Your task to perform on an android device: Do I have any events today? Image 0: 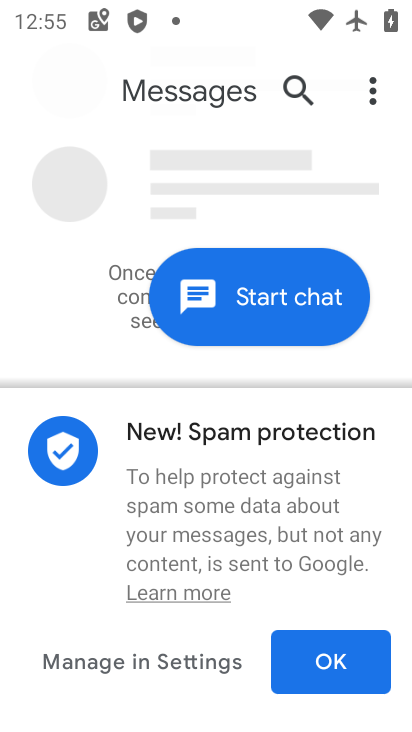
Step 0: press home button
Your task to perform on an android device: Do I have any events today? Image 1: 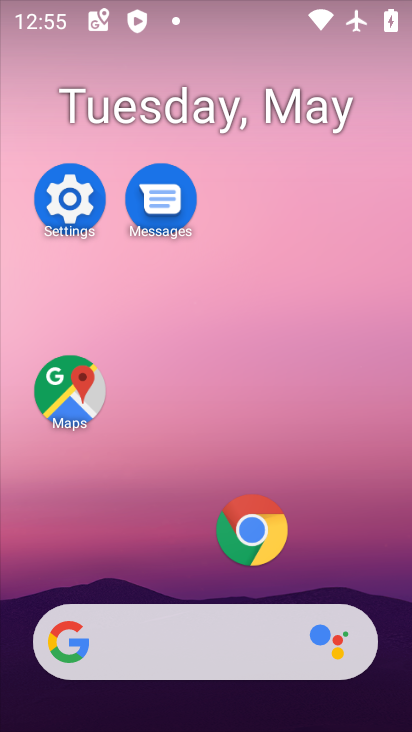
Step 1: drag from (207, 578) to (239, 226)
Your task to perform on an android device: Do I have any events today? Image 2: 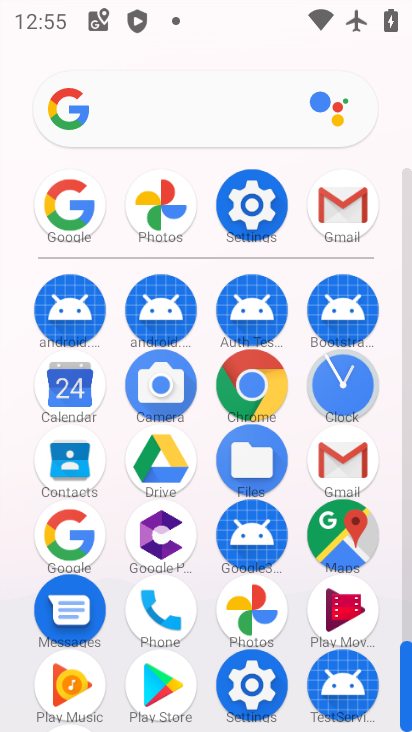
Step 2: click (81, 547)
Your task to perform on an android device: Do I have any events today? Image 3: 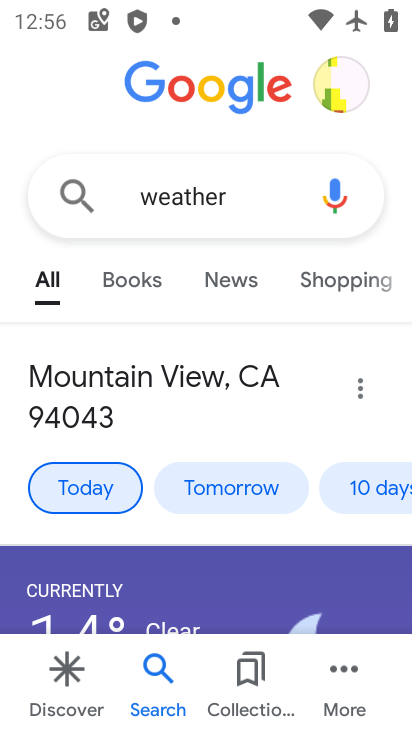
Step 3: press home button
Your task to perform on an android device: Do I have any events today? Image 4: 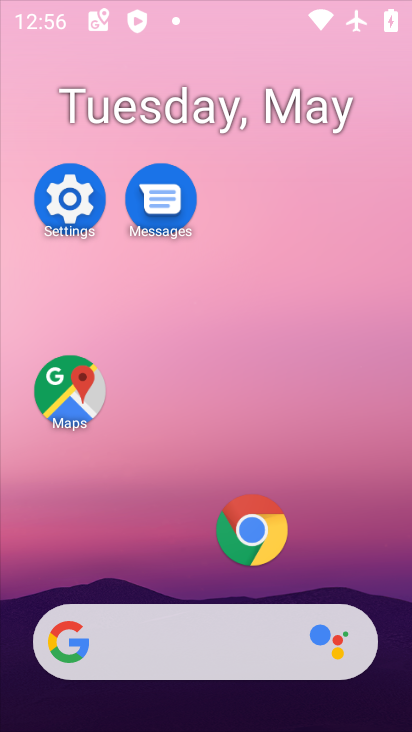
Step 4: press home button
Your task to perform on an android device: Do I have any events today? Image 5: 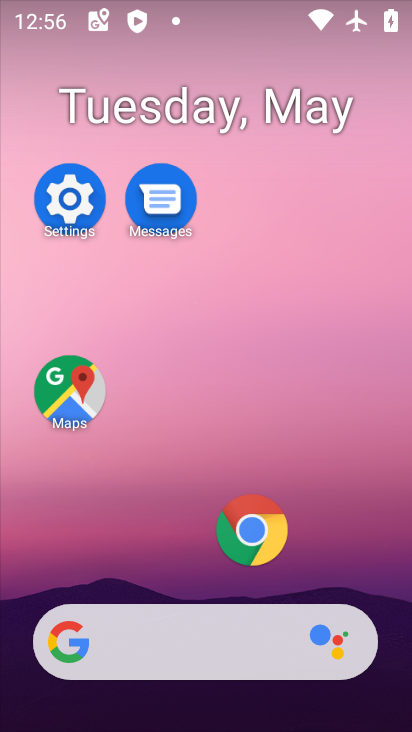
Step 5: drag from (282, 384) to (277, 188)
Your task to perform on an android device: Do I have any events today? Image 6: 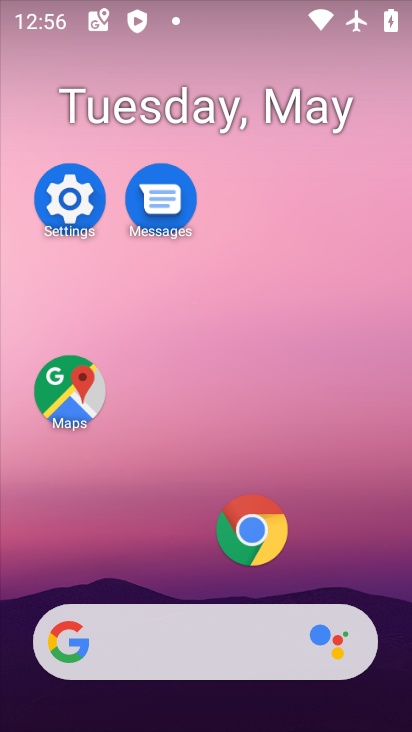
Step 6: drag from (292, 242) to (297, 168)
Your task to perform on an android device: Do I have any events today? Image 7: 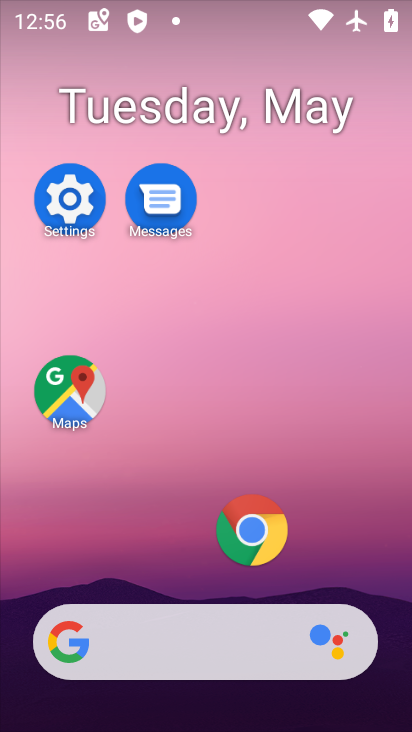
Step 7: drag from (173, 464) to (288, 112)
Your task to perform on an android device: Do I have any events today? Image 8: 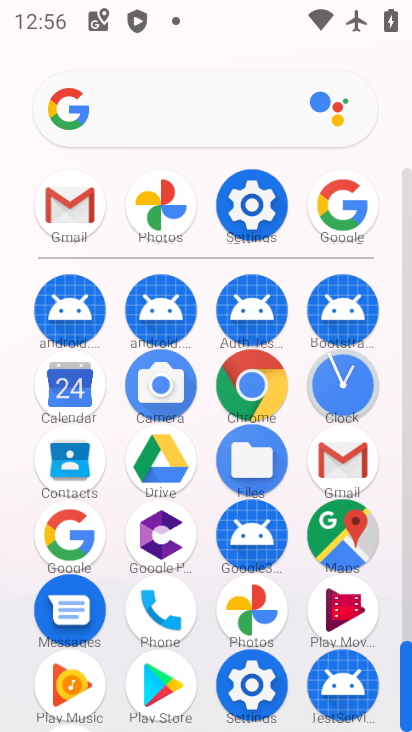
Step 8: click (88, 407)
Your task to perform on an android device: Do I have any events today? Image 9: 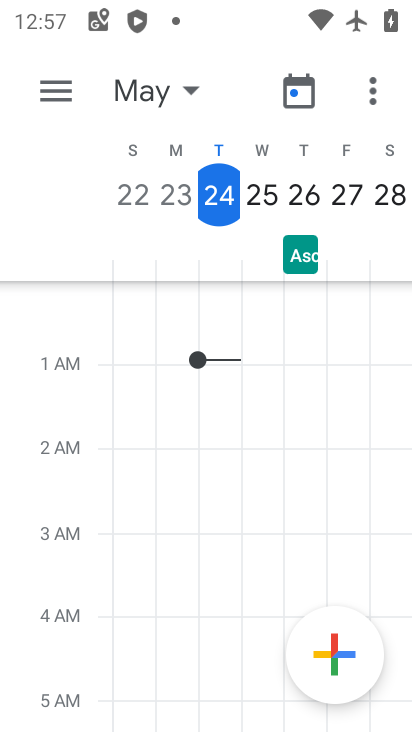
Step 9: task complete